Your task to perform on an android device: toggle notifications settings in the gmail app Image 0: 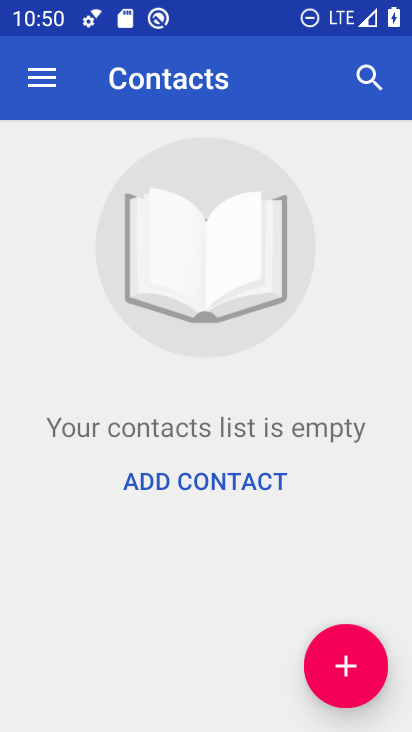
Step 0: press home button
Your task to perform on an android device: toggle notifications settings in the gmail app Image 1: 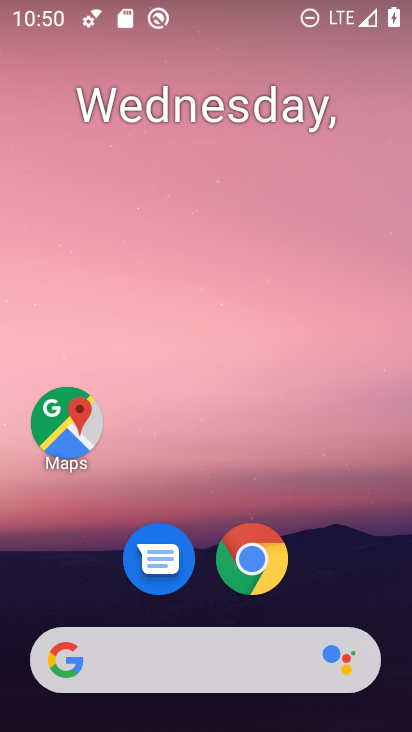
Step 1: drag from (347, 577) to (353, 162)
Your task to perform on an android device: toggle notifications settings in the gmail app Image 2: 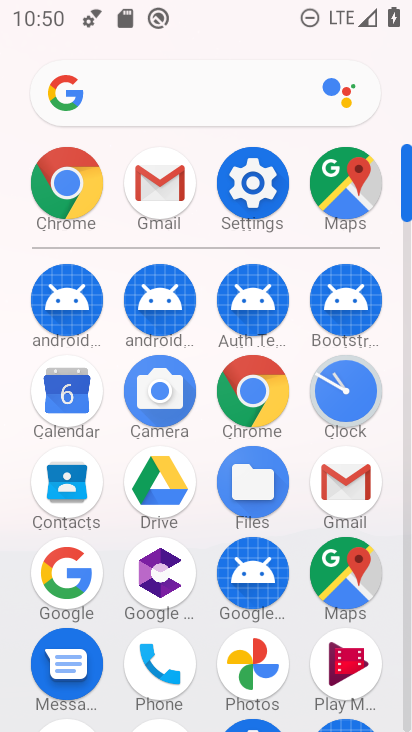
Step 2: click (359, 478)
Your task to perform on an android device: toggle notifications settings in the gmail app Image 3: 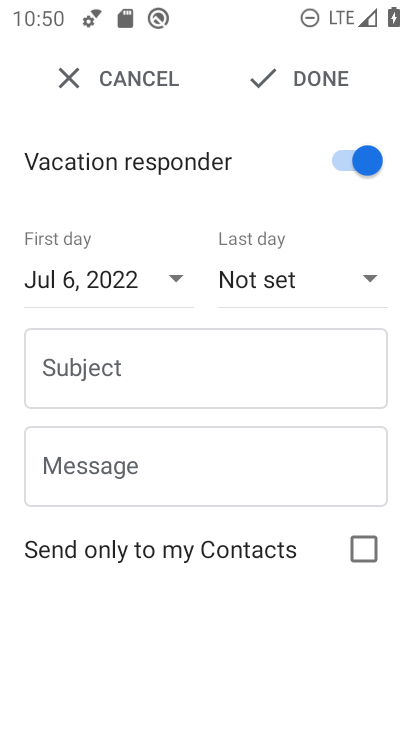
Step 3: press back button
Your task to perform on an android device: toggle notifications settings in the gmail app Image 4: 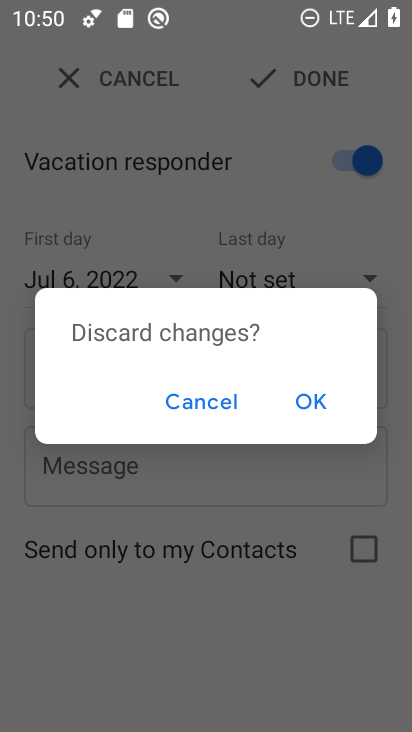
Step 4: click (317, 400)
Your task to perform on an android device: toggle notifications settings in the gmail app Image 5: 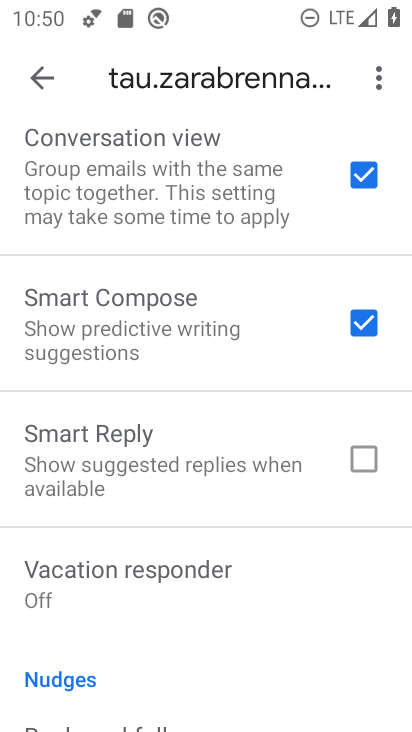
Step 5: press back button
Your task to perform on an android device: toggle notifications settings in the gmail app Image 6: 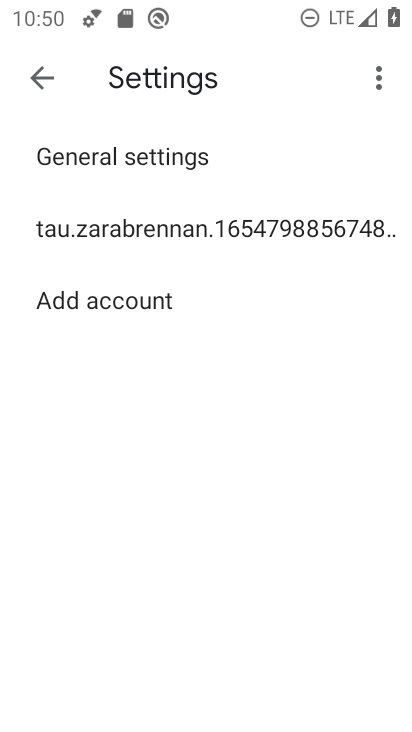
Step 6: press back button
Your task to perform on an android device: toggle notifications settings in the gmail app Image 7: 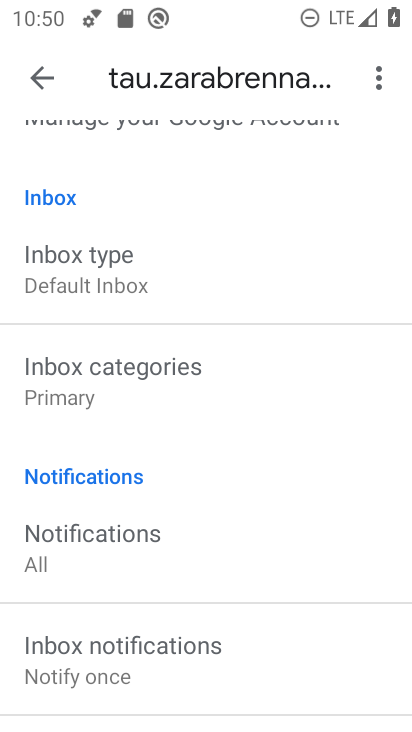
Step 7: drag from (344, 298) to (349, 448)
Your task to perform on an android device: toggle notifications settings in the gmail app Image 8: 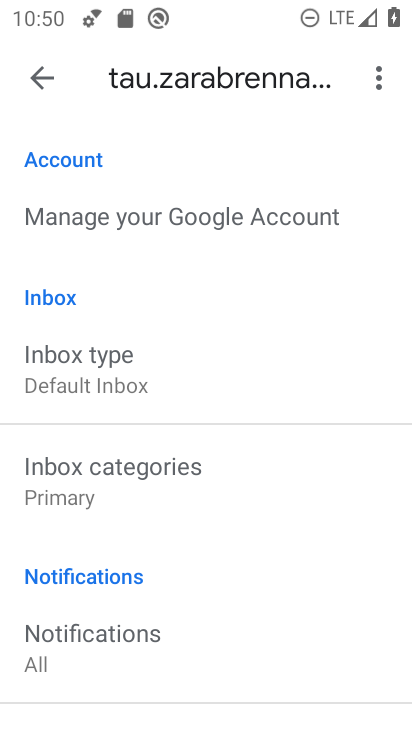
Step 8: drag from (360, 194) to (352, 395)
Your task to perform on an android device: toggle notifications settings in the gmail app Image 9: 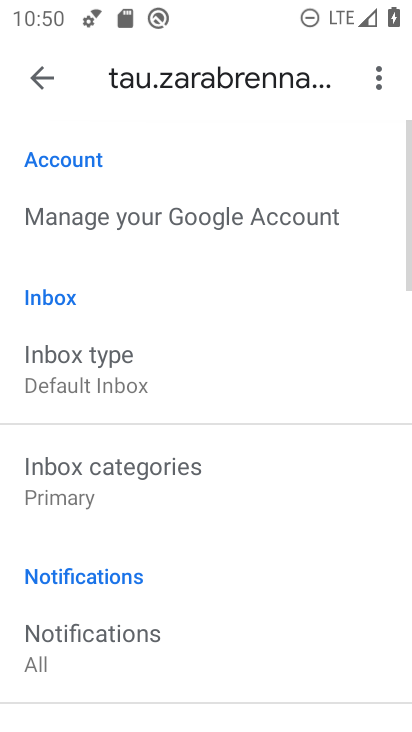
Step 9: drag from (321, 518) to (320, 360)
Your task to perform on an android device: toggle notifications settings in the gmail app Image 10: 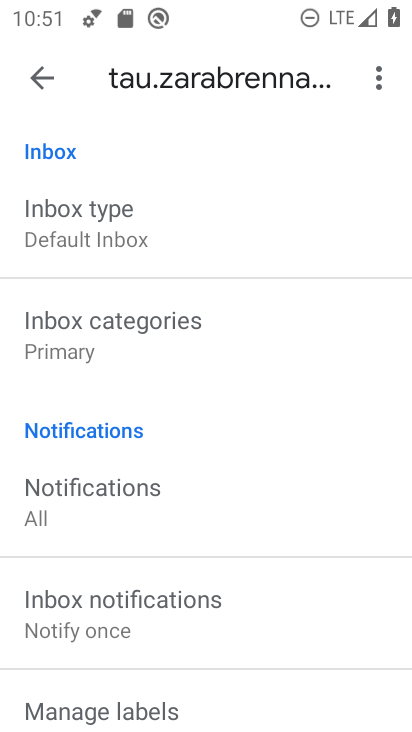
Step 10: drag from (312, 552) to (315, 438)
Your task to perform on an android device: toggle notifications settings in the gmail app Image 11: 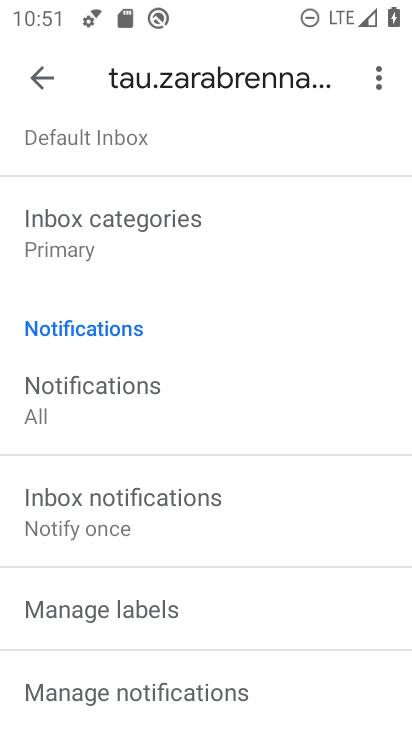
Step 11: drag from (316, 545) to (313, 422)
Your task to perform on an android device: toggle notifications settings in the gmail app Image 12: 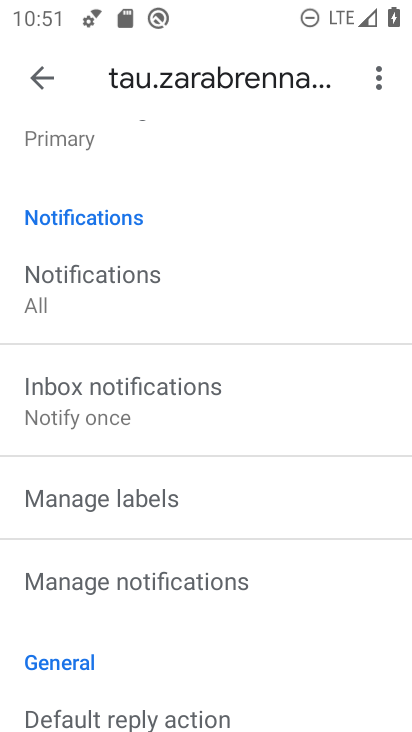
Step 12: drag from (328, 543) to (316, 426)
Your task to perform on an android device: toggle notifications settings in the gmail app Image 13: 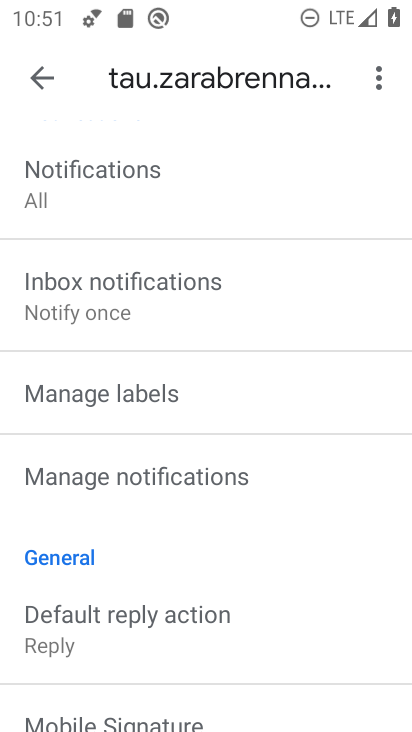
Step 13: click (228, 482)
Your task to perform on an android device: toggle notifications settings in the gmail app Image 14: 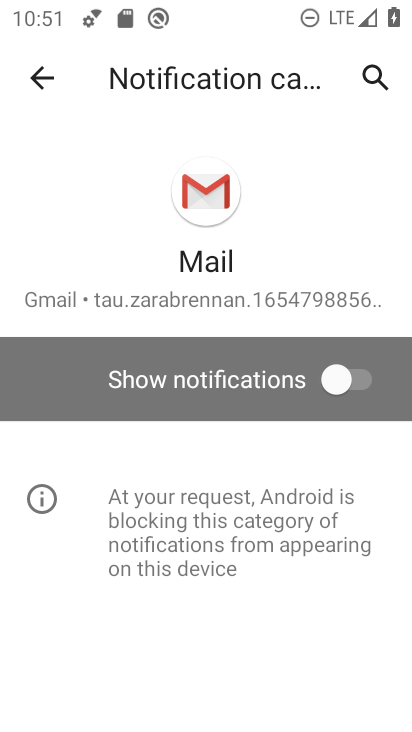
Step 14: click (340, 378)
Your task to perform on an android device: toggle notifications settings in the gmail app Image 15: 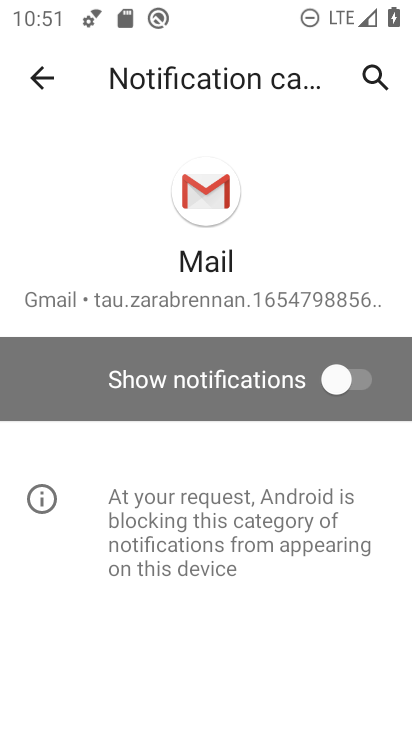
Step 15: click (351, 377)
Your task to perform on an android device: toggle notifications settings in the gmail app Image 16: 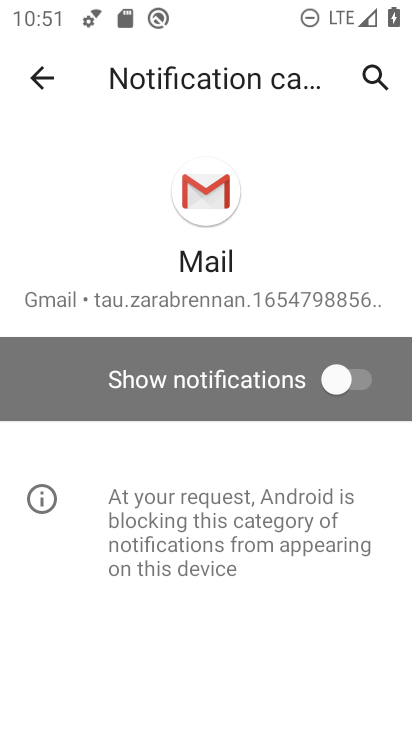
Step 16: task complete